Your task to perform on an android device: Clear the cart on amazon. Search for "macbook pro" on amazon, select the first entry, and add it to the cart. Image 0: 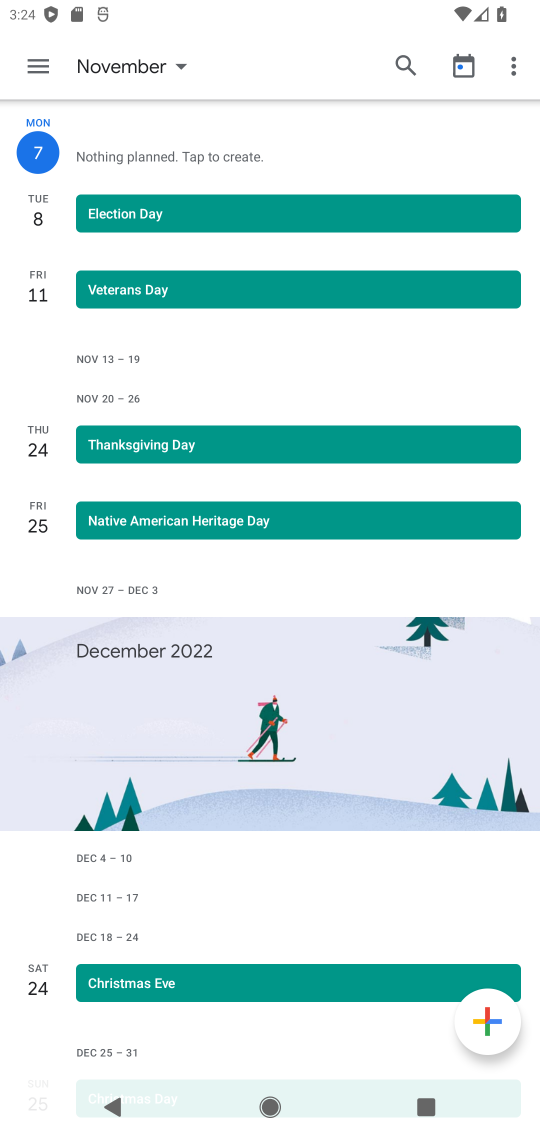
Step 0: press home button
Your task to perform on an android device: Clear the cart on amazon. Search for "macbook pro" on amazon, select the first entry, and add it to the cart. Image 1: 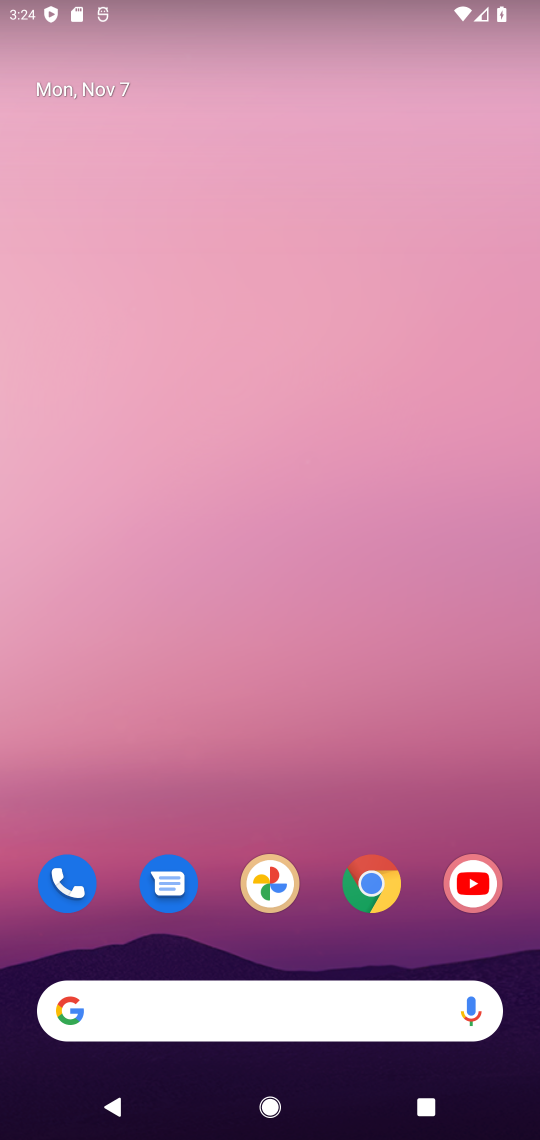
Step 1: click (372, 883)
Your task to perform on an android device: Clear the cart on amazon. Search for "macbook pro" on amazon, select the first entry, and add it to the cart. Image 2: 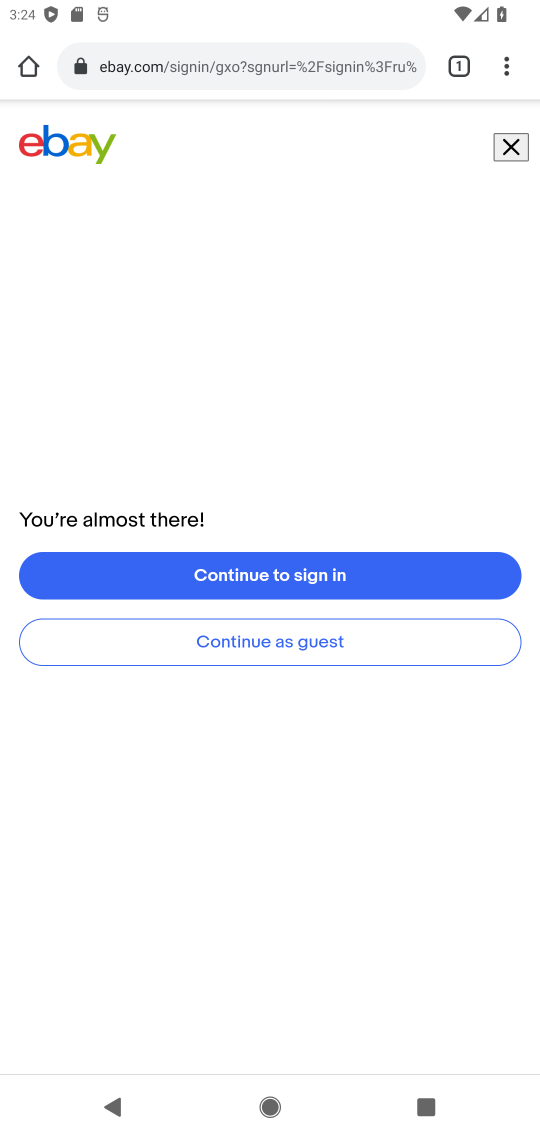
Step 2: click (261, 67)
Your task to perform on an android device: Clear the cart on amazon. Search for "macbook pro" on amazon, select the first entry, and add it to the cart. Image 3: 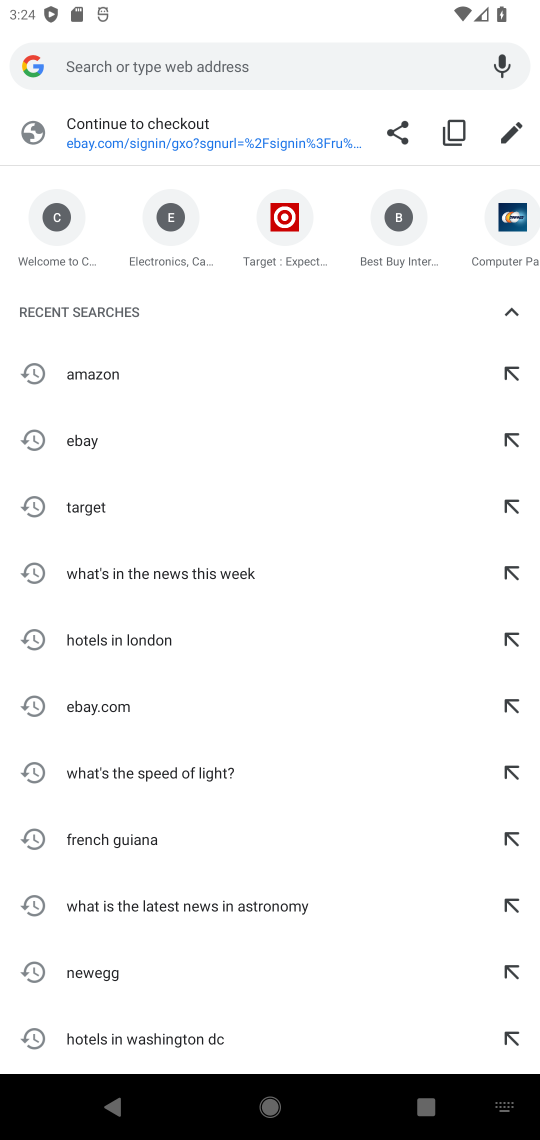
Step 3: type "amazon"
Your task to perform on an android device: Clear the cart on amazon. Search for "macbook pro" on amazon, select the first entry, and add it to the cart. Image 4: 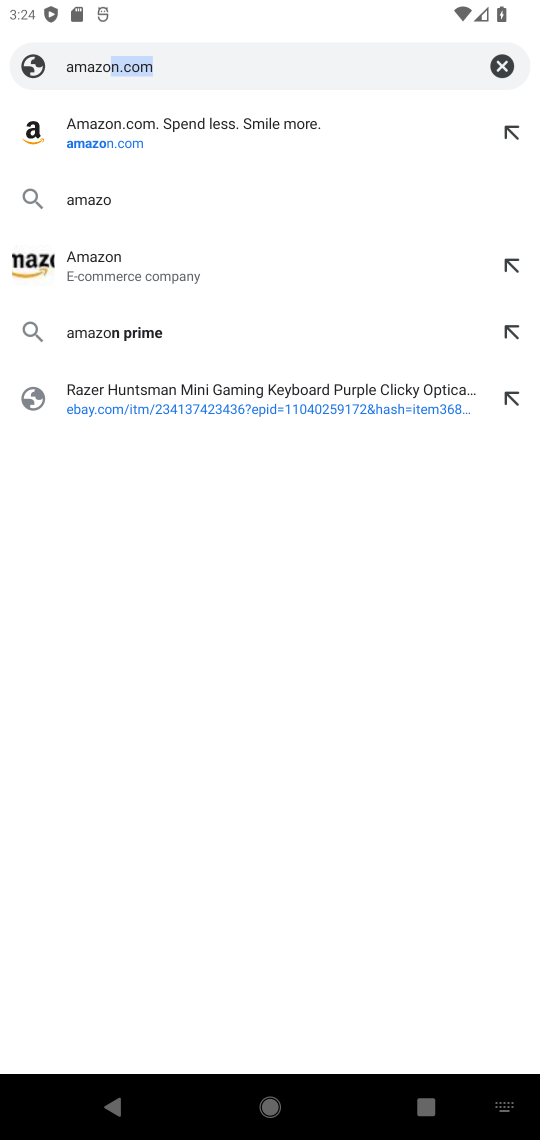
Step 4: press enter
Your task to perform on an android device: Clear the cart on amazon. Search for "macbook pro" on amazon, select the first entry, and add it to the cart. Image 5: 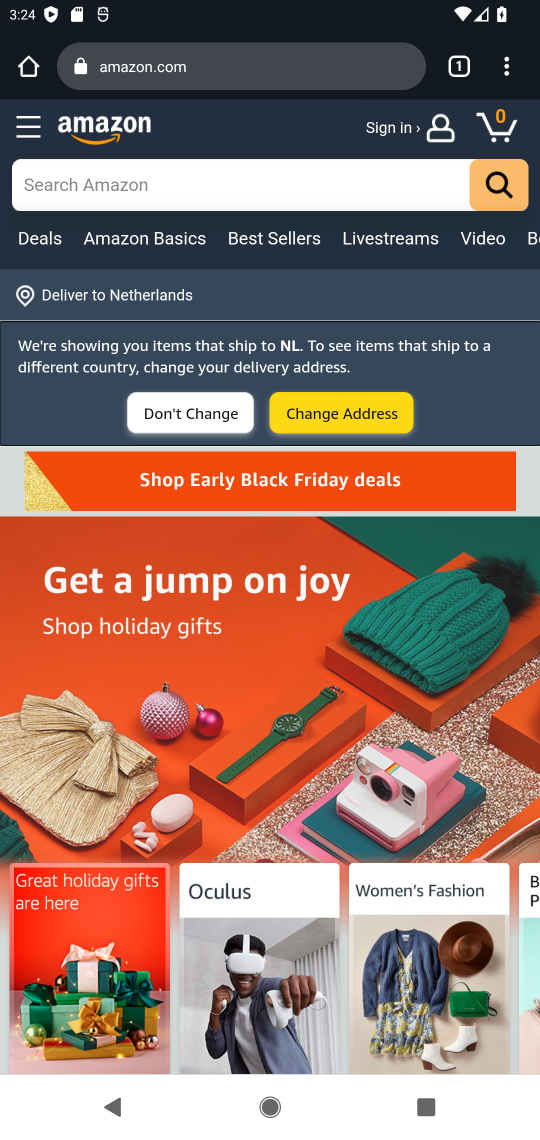
Step 5: click (125, 197)
Your task to perform on an android device: Clear the cart on amazon. Search for "macbook pro" on amazon, select the first entry, and add it to the cart. Image 6: 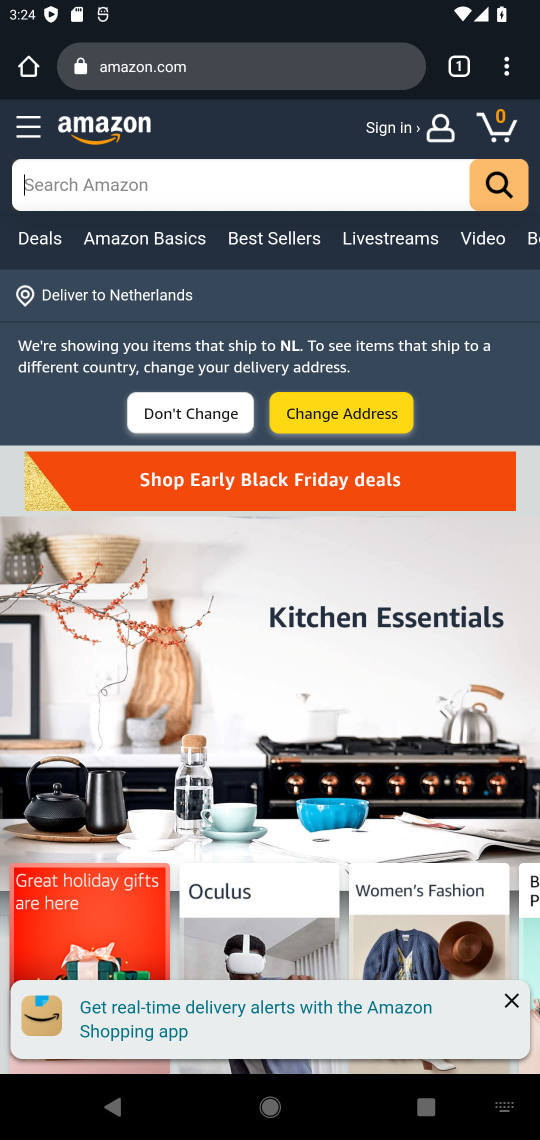
Step 6: press enter
Your task to perform on an android device: Clear the cart on amazon. Search for "macbook pro" on amazon, select the first entry, and add it to the cart. Image 7: 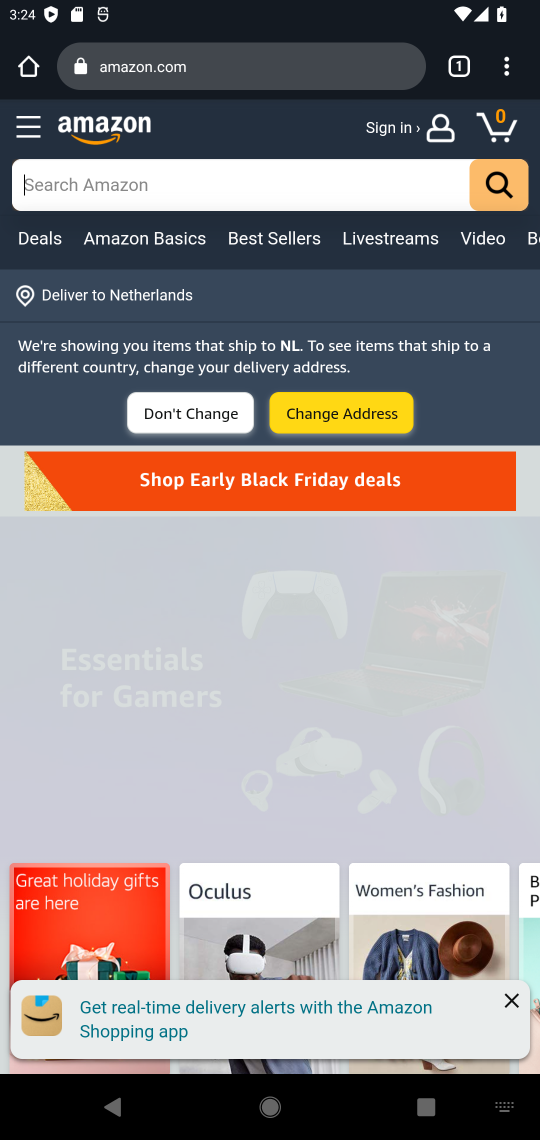
Step 7: type "macbook pro"
Your task to perform on an android device: Clear the cart on amazon. Search for "macbook pro" on amazon, select the first entry, and add it to the cart. Image 8: 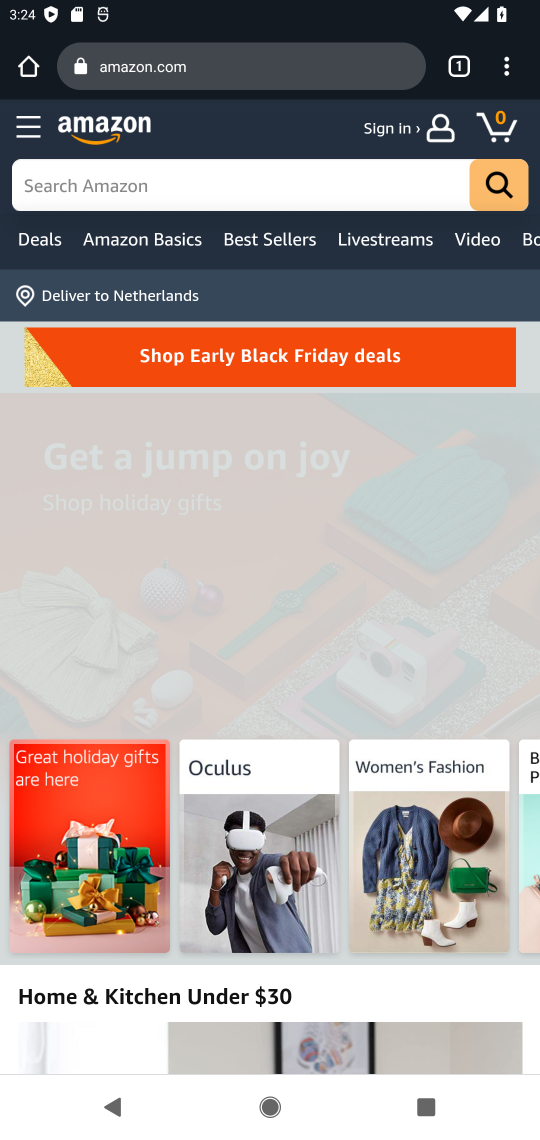
Step 8: click (56, 179)
Your task to perform on an android device: Clear the cart on amazon. Search for "macbook pro" on amazon, select the first entry, and add it to the cart. Image 9: 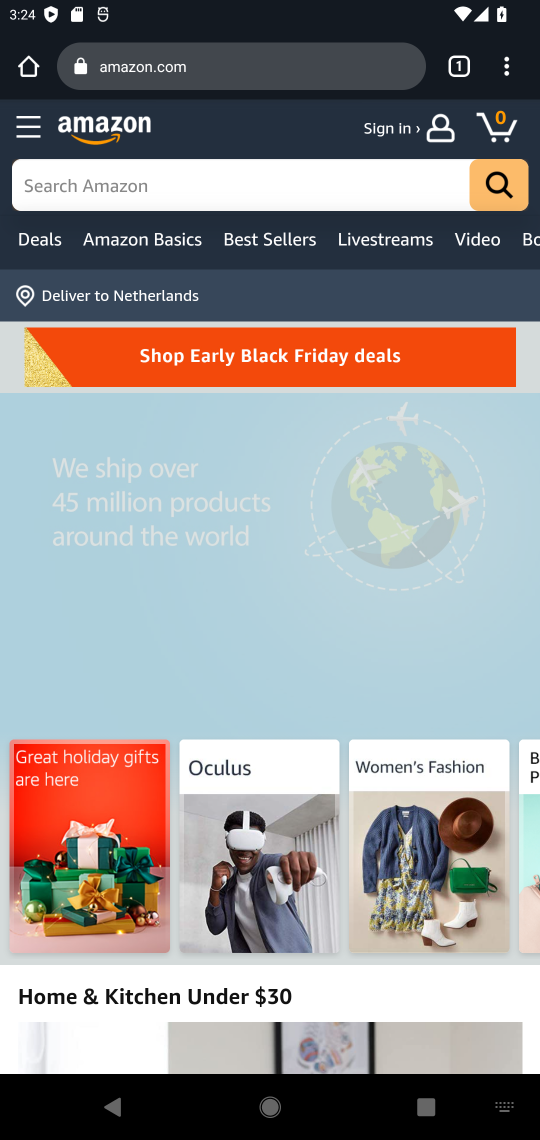
Step 9: press enter
Your task to perform on an android device: Clear the cart on amazon. Search for "macbook pro" on amazon, select the first entry, and add it to the cart. Image 10: 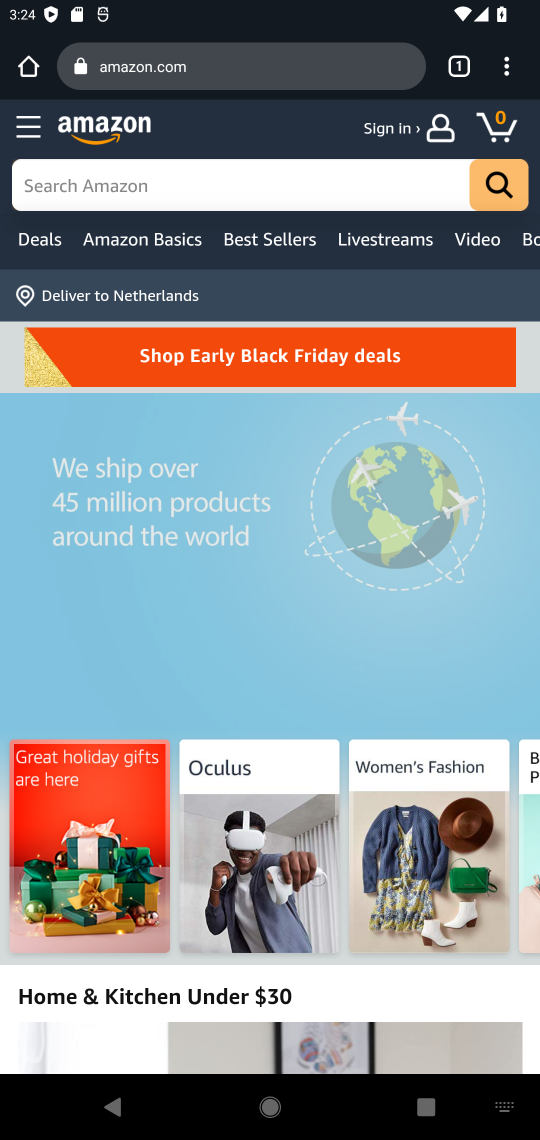
Step 10: type "macbook pro"
Your task to perform on an android device: Clear the cart on amazon. Search for "macbook pro" on amazon, select the first entry, and add it to the cart. Image 11: 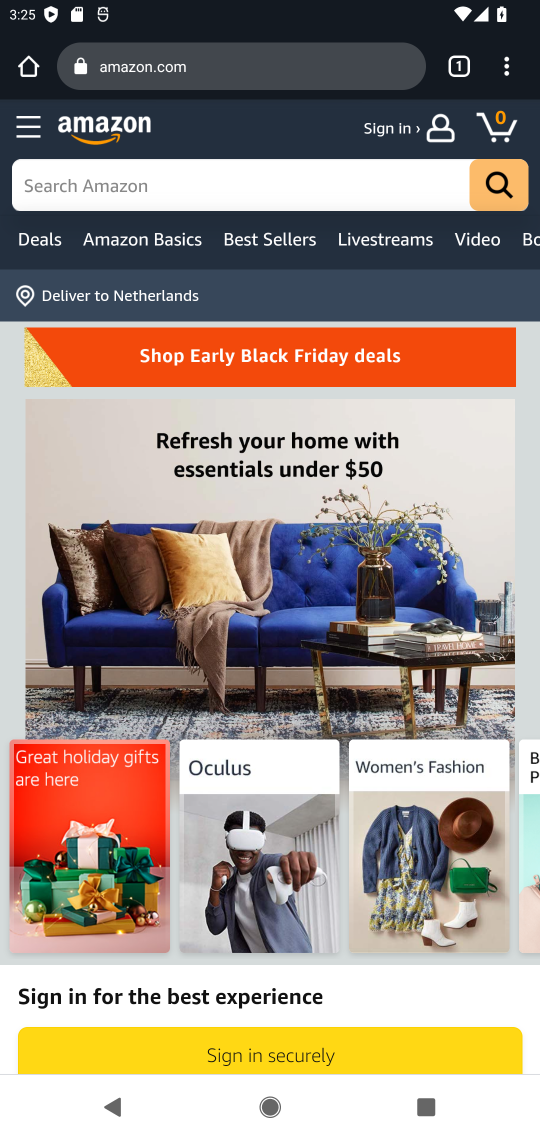
Step 11: drag from (421, 559) to (537, 305)
Your task to perform on an android device: Clear the cart on amazon. Search for "macbook pro" on amazon, select the first entry, and add it to the cart. Image 12: 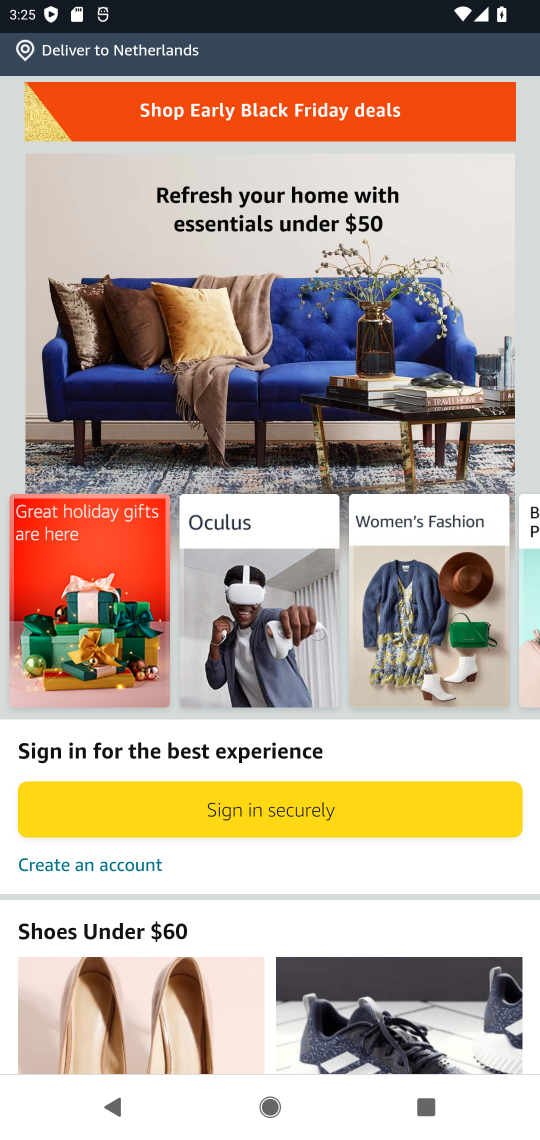
Step 12: drag from (279, 316) to (209, 1078)
Your task to perform on an android device: Clear the cart on amazon. Search for "macbook pro" on amazon, select the first entry, and add it to the cart. Image 13: 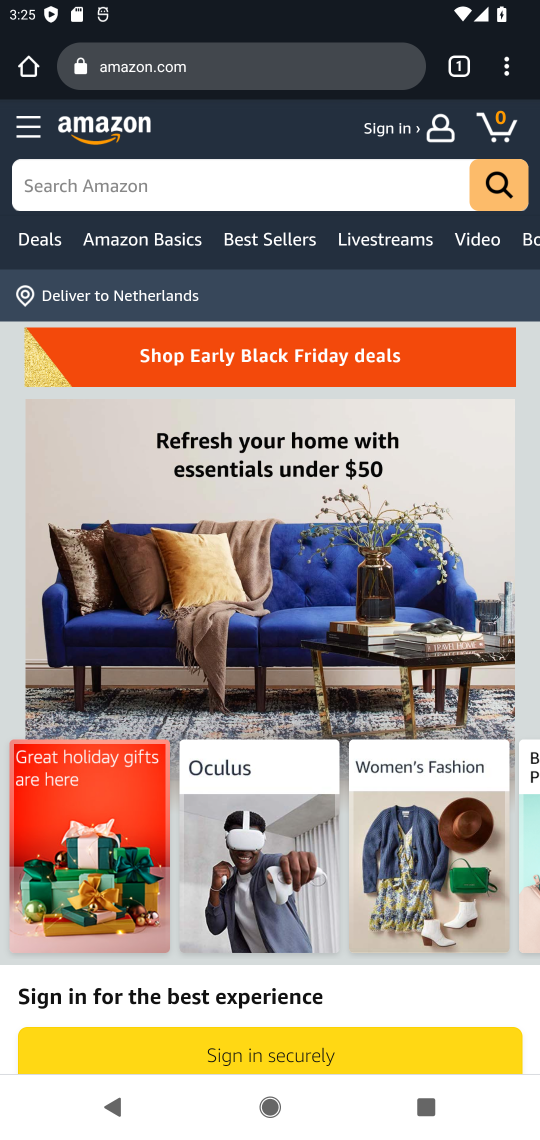
Step 13: click (73, 184)
Your task to perform on an android device: Clear the cart on amazon. Search for "macbook pro" on amazon, select the first entry, and add it to the cart. Image 14: 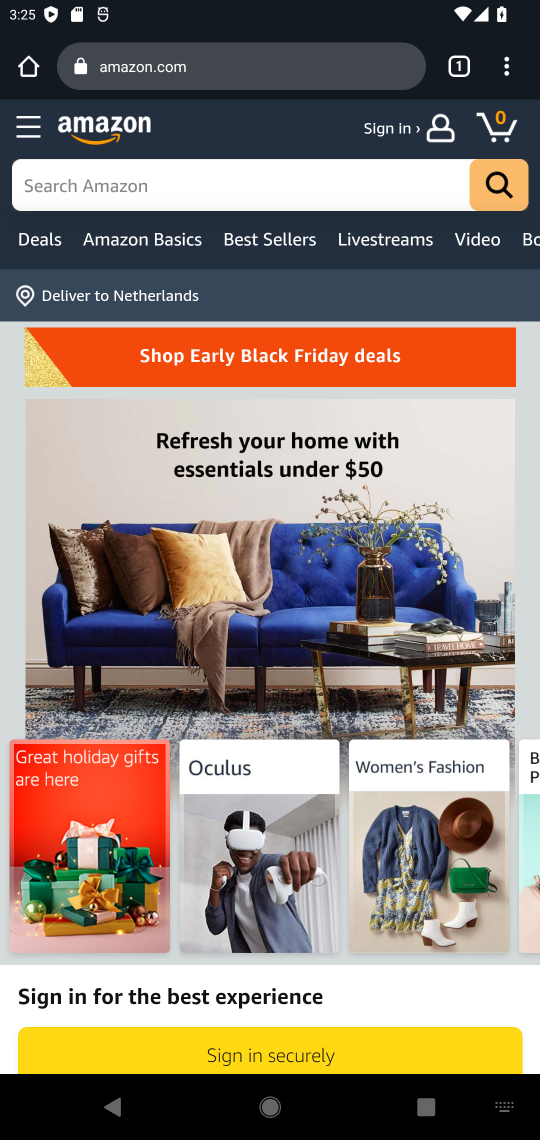
Step 14: click (73, 189)
Your task to perform on an android device: Clear the cart on amazon. Search for "macbook pro" on amazon, select the first entry, and add it to the cart. Image 15: 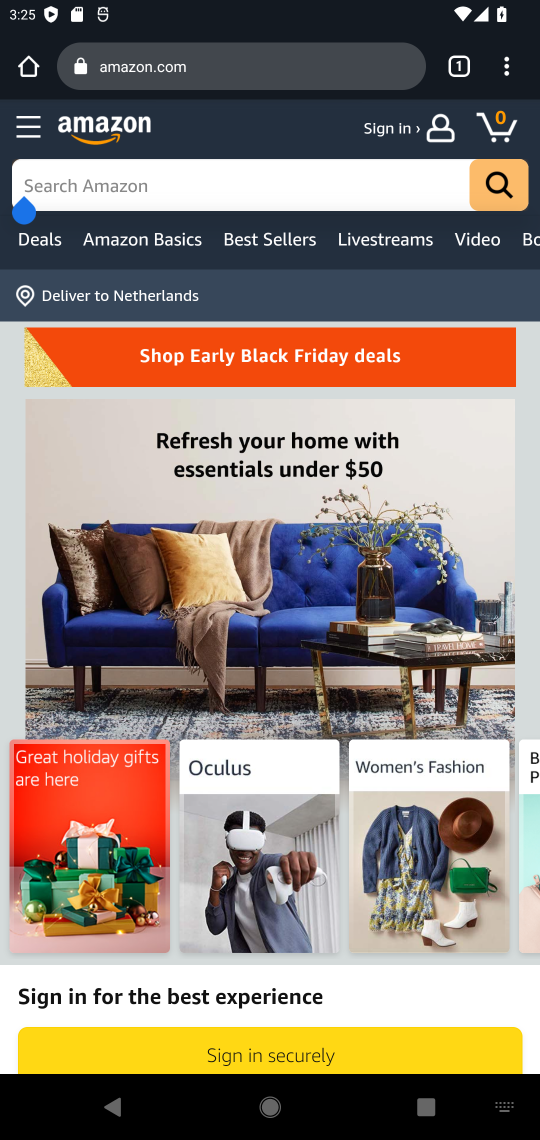
Step 15: type "macbook pro"
Your task to perform on an android device: Clear the cart on amazon. Search for "macbook pro" on amazon, select the first entry, and add it to the cart. Image 16: 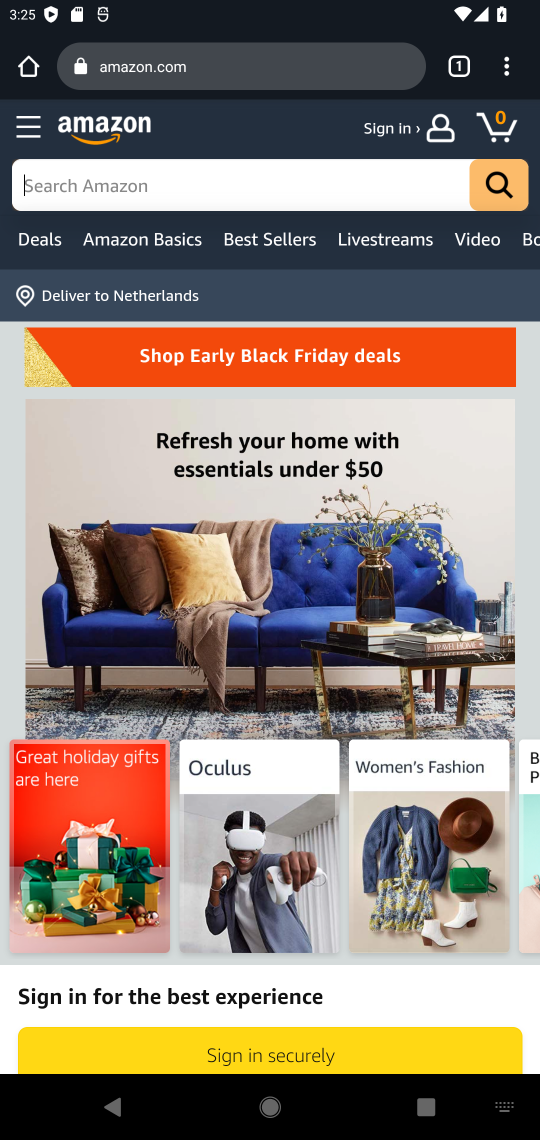
Step 16: press enter
Your task to perform on an android device: Clear the cart on amazon. Search for "macbook pro" on amazon, select the first entry, and add it to the cart. Image 17: 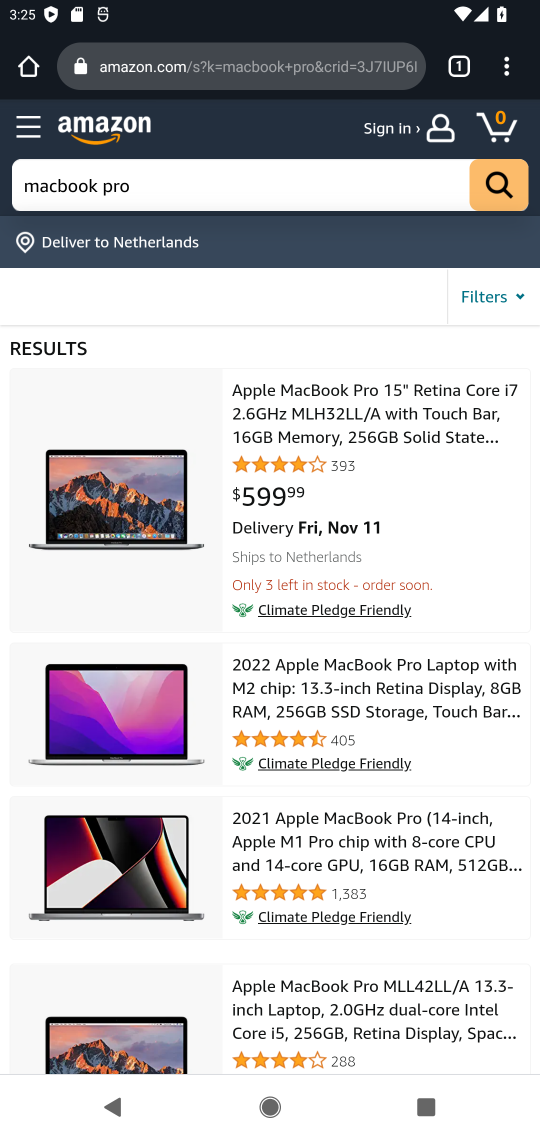
Step 17: click (332, 471)
Your task to perform on an android device: Clear the cart on amazon. Search for "macbook pro" on amazon, select the first entry, and add it to the cart. Image 18: 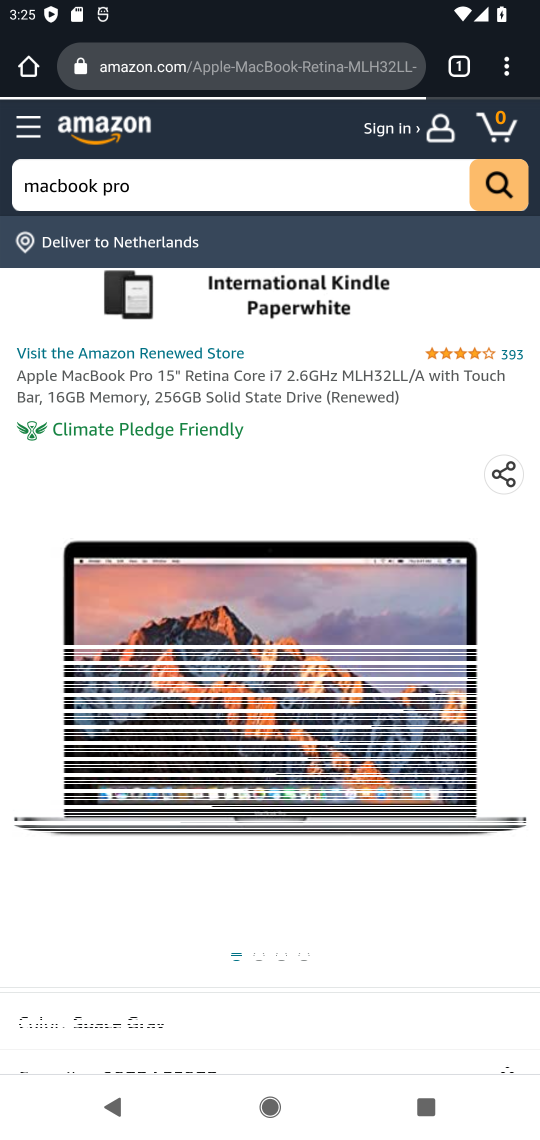
Step 18: drag from (291, 895) to (473, 225)
Your task to perform on an android device: Clear the cart on amazon. Search for "macbook pro" on amazon, select the first entry, and add it to the cart. Image 19: 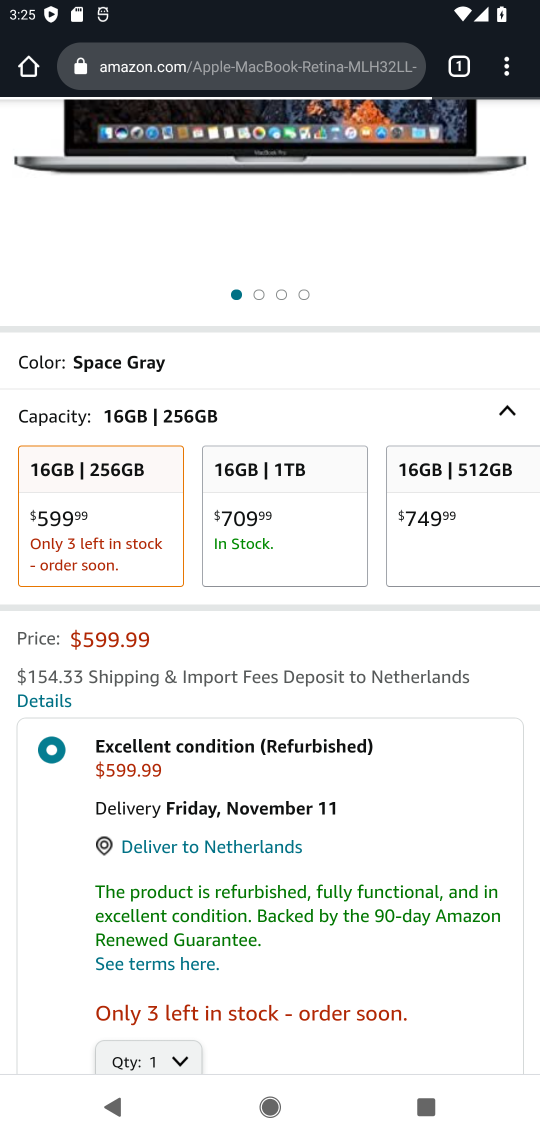
Step 19: drag from (295, 895) to (445, 422)
Your task to perform on an android device: Clear the cart on amazon. Search for "macbook pro" on amazon, select the first entry, and add it to the cart. Image 20: 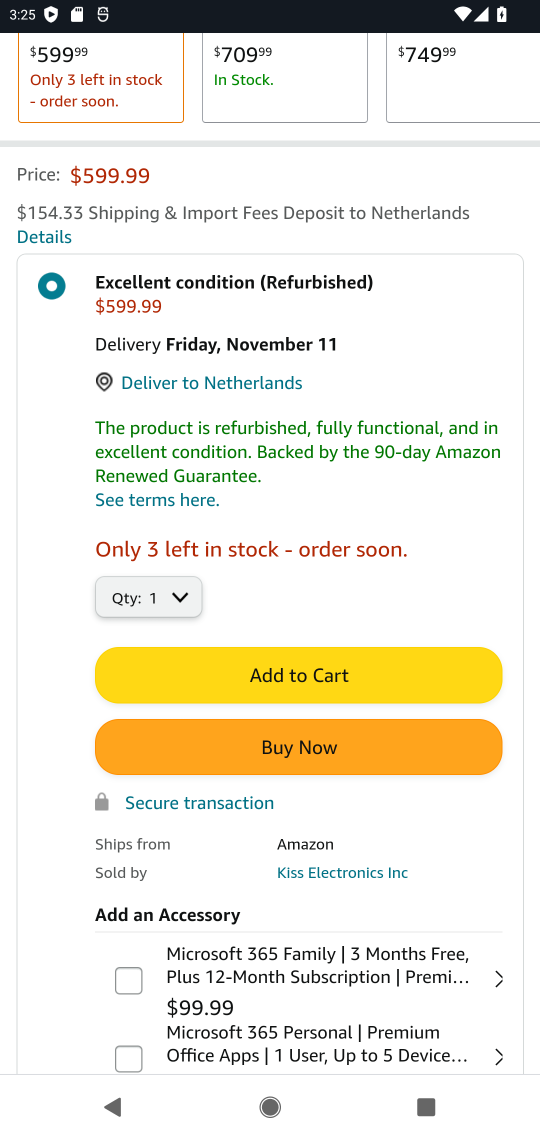
Step 20: click (288, 662)
Your task to perform on an android device: Clear the cart on amazon. Search for "macbook pro" on amazon, select the first entry, and add it to the cart. Image 21: 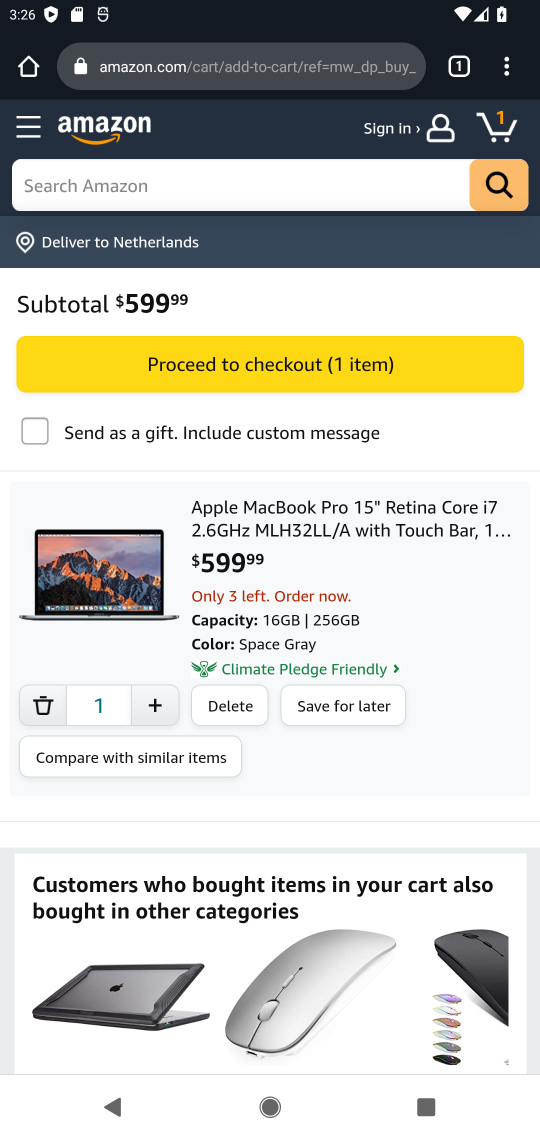
Step 21: task complete